Your task to perform on an android device: Install the eBay app Image 0: 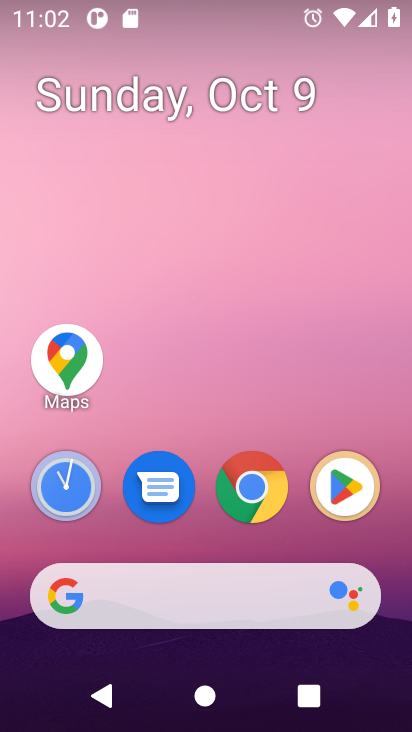
Step 0: drag from (208, 559) to (257, 57)
Your task to perform on an android device: Install the eBay app Image 1: 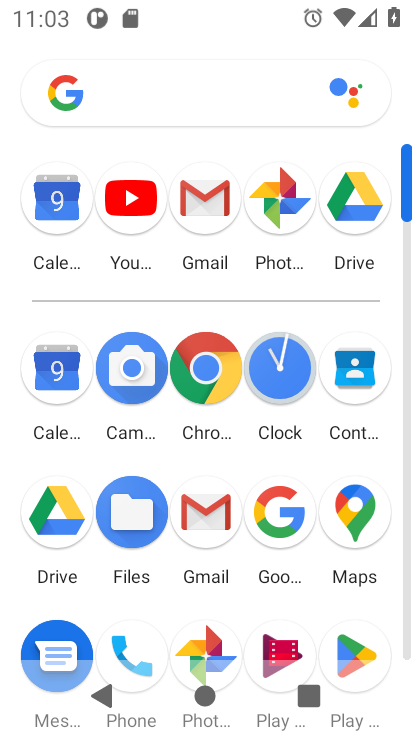
Step 1: click (358, 650)
Your task to perform on an android device: Install the eBay app Image 2: 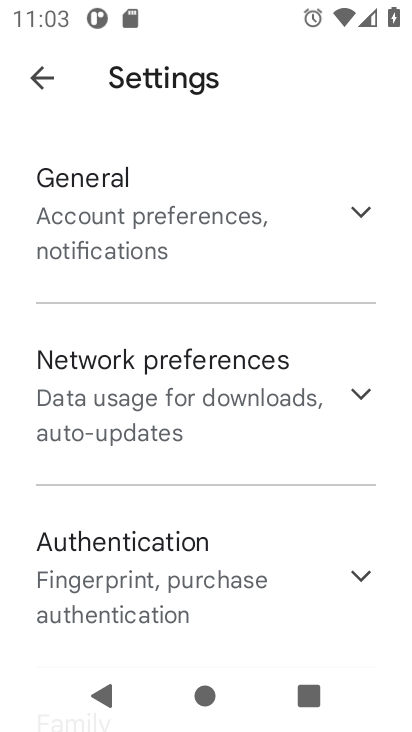
Step 2: click (39, 72)
Your task to perform on an android device: Install the eBay app Image 3: 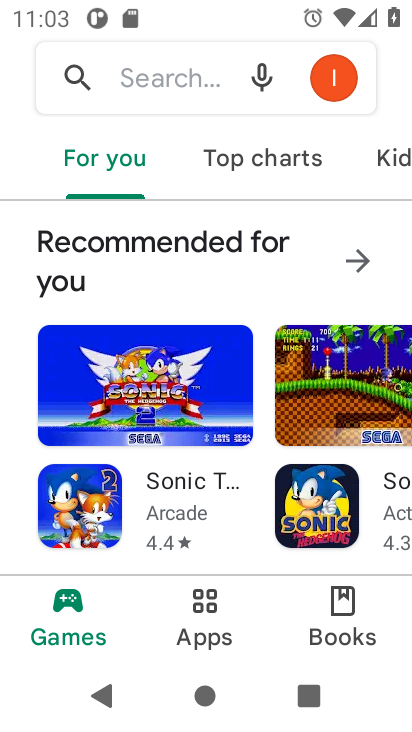
Step 3: click (154, 77)
Your task to perform on an android device: Install the eBay app Image 4: 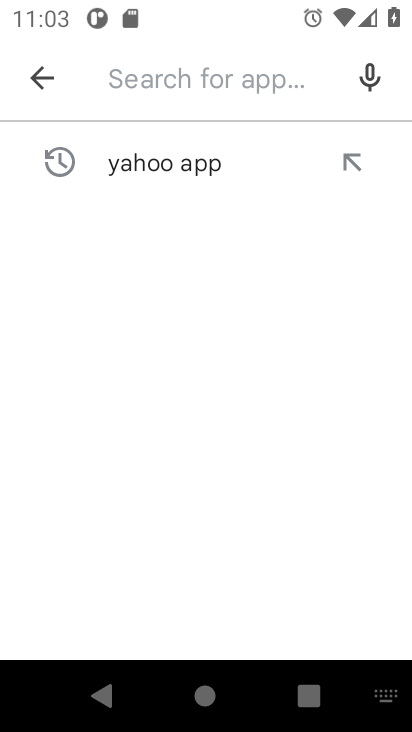
Step 4: type "eBay "
Your task to perform on an android device: Install the eBay app Image 5: 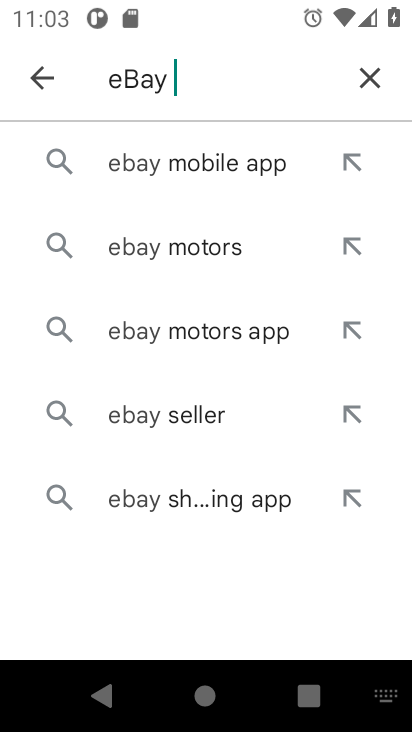
Step 5: type ""
Your task to perform on an android device: Install the eBay app Image 6: 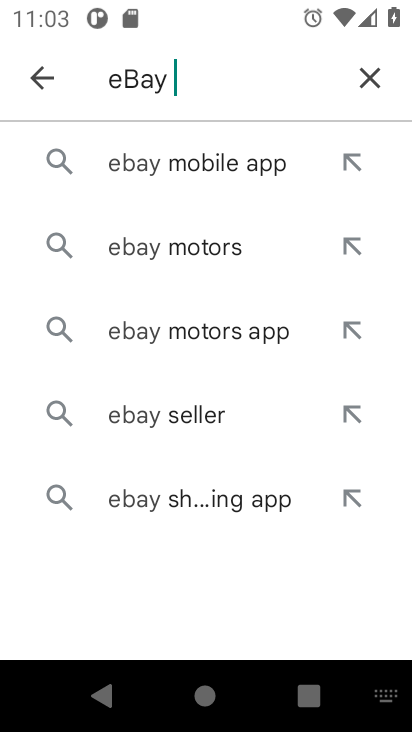
Step 6: click (153, 160)
Your task to perform on an android device: Install the eBay app Image 7: 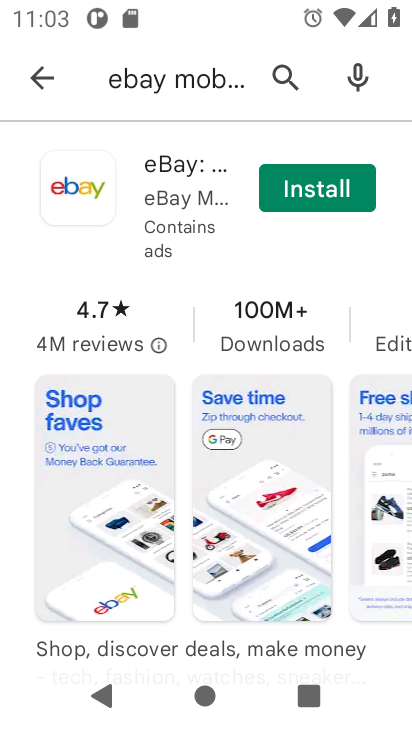
Step 7: click (339, 191)
Your task to perform on an android device: Install the eBay app Image 8: 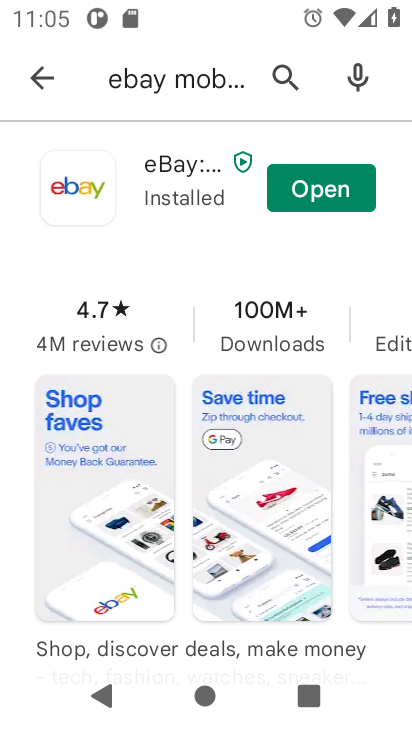
Step 8: task complete